Your task to perform on an android device: Go to Amazon Image 0: 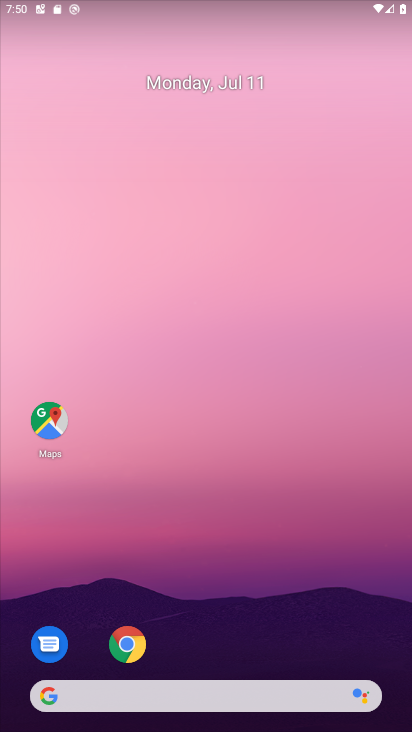
Step 0: drag from (262, 567) to (224, 53)
Your task to perform on an android device: Go to Amazon Image 1: 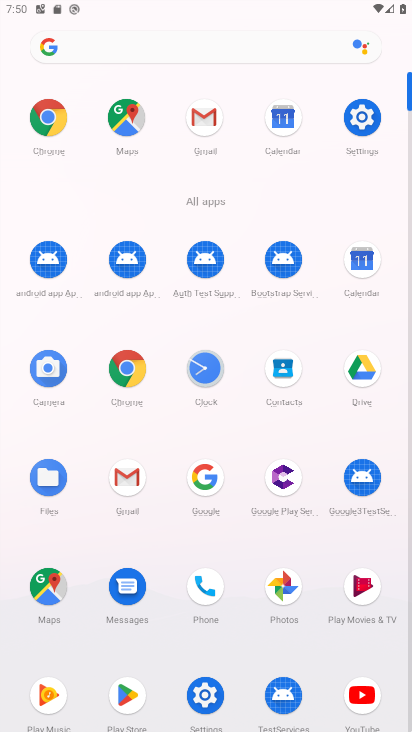
Step 1: click (33, 110)
Your task to perform on an android device: Go to Amazon Image 2: 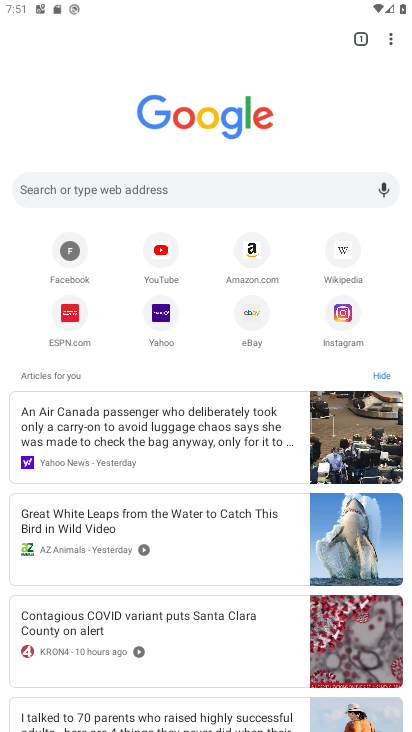
Step 2: click (241, 239)
Your task to perform on an android device: Go to Amazon Image 3: 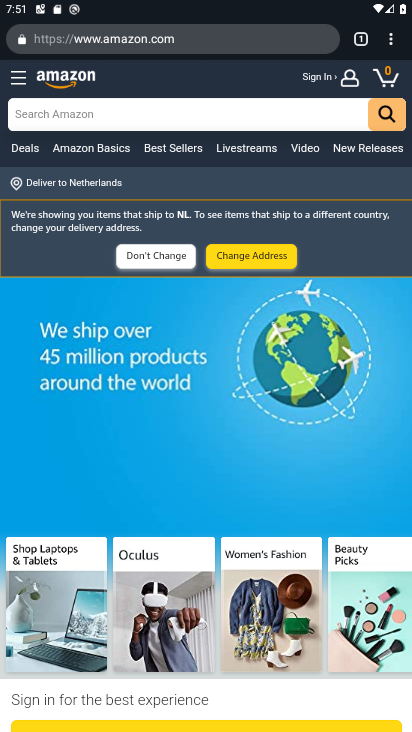
Step 3: task complete